Your task to perform on an android device: set an alarm Image 0: 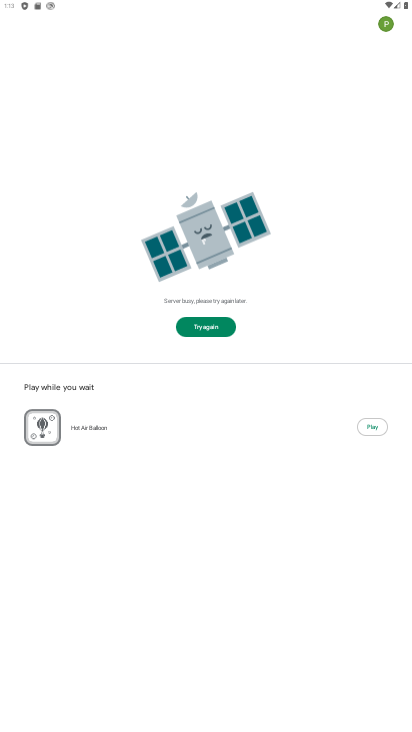
Step 0: press home button
Your task to perform on an android device: set an alarm Image 1: 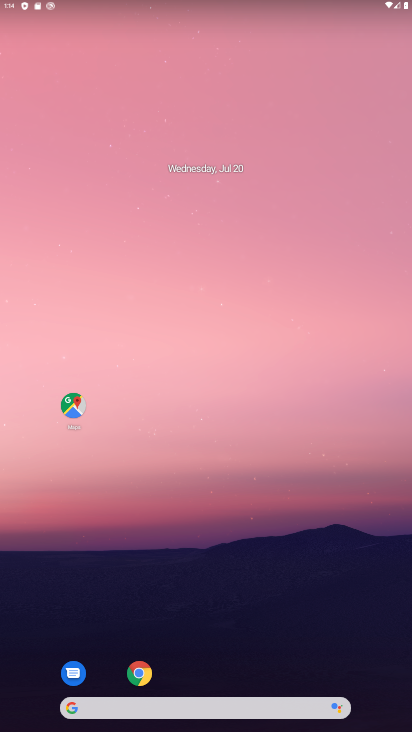
Step 1: drag from (370, 635) to (333, 36)
Your task to perform on an android device: set an alarm Image 2: 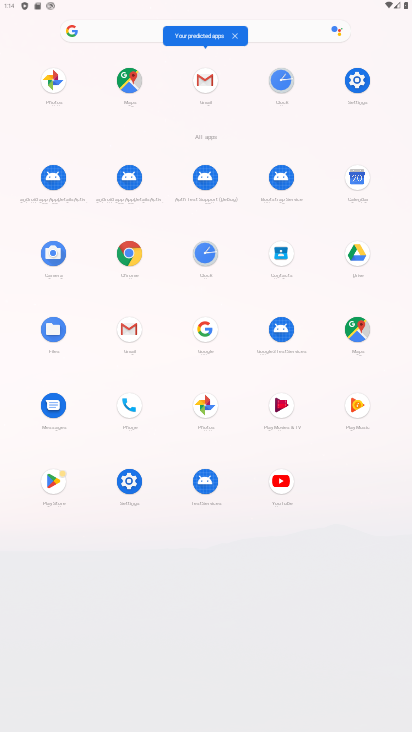
Step 2: click (284, 91)
Your task to perform on an android device: set an alarm Image 3: 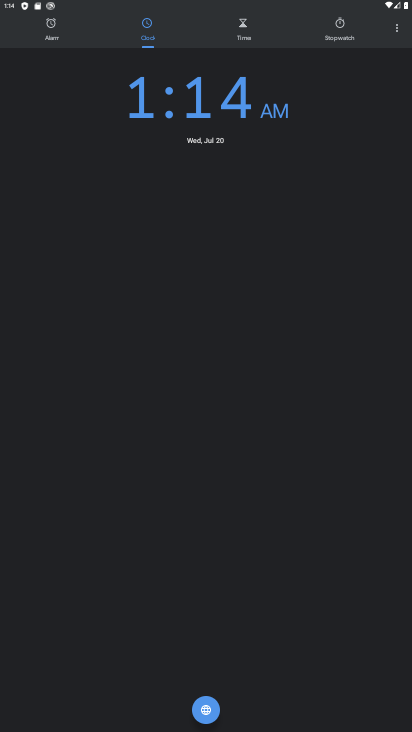
Step 3: click (44, 25)
Your task to perform on an android device: set an alarm Image 4: 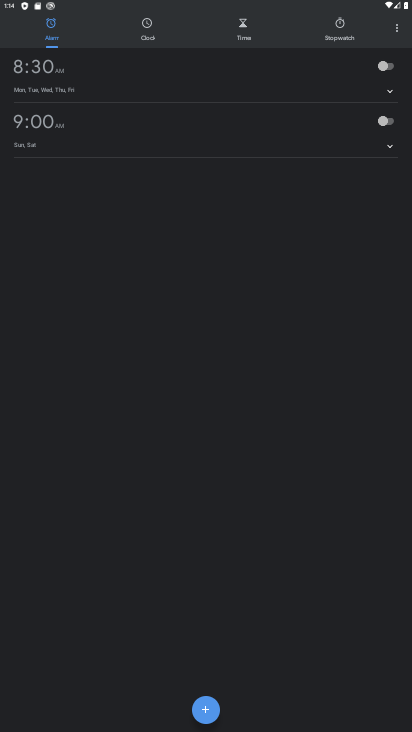
Step 4: click (213, 715)
Your task to perform on an android device: set an alarm Image 5: 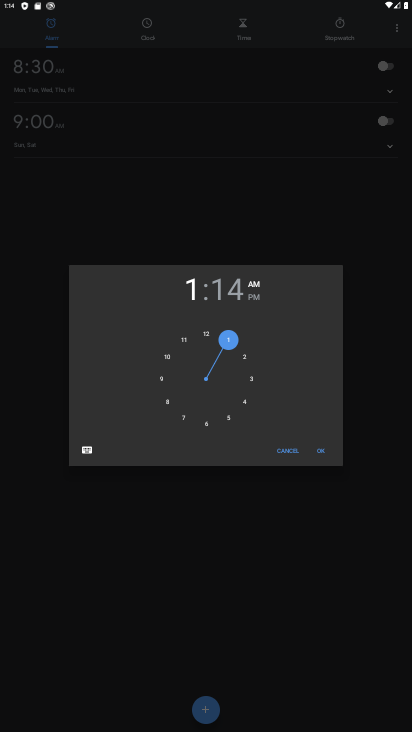
Step 5: click (325, 448)
Your task to perform on an android device: set an alarm Image 6: 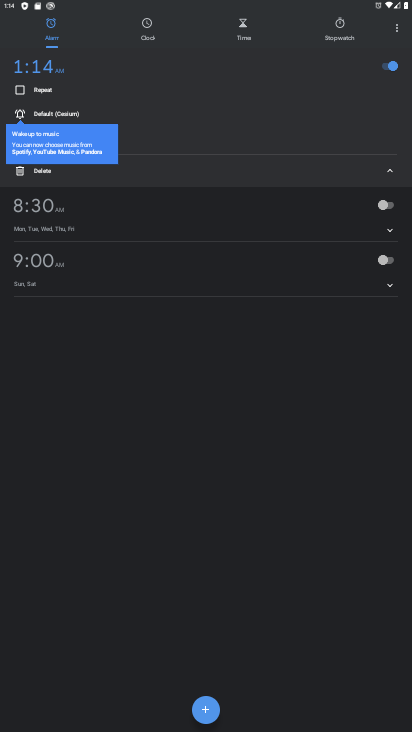
Step 6: task complete